Your task to perform on an android device: turn off location Image 0: 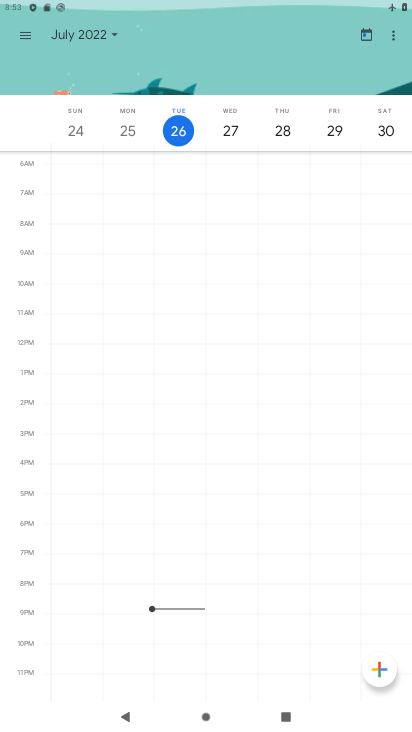
Step 0: press home button
Your task to perform on an android device: turn off location Image 1: 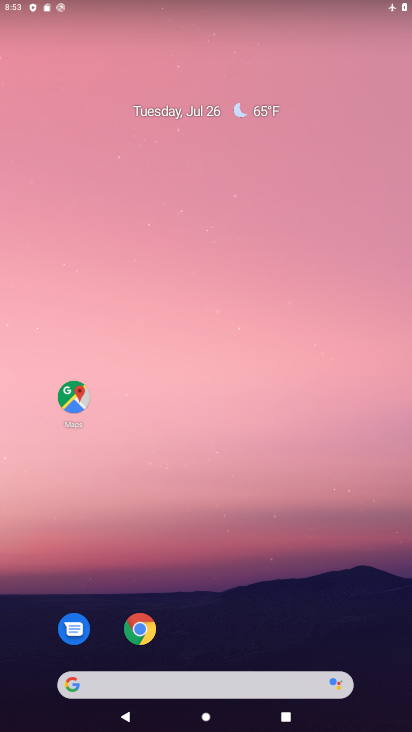
Step 1: drag from (322, 592) to (250, 28)
Your task to perform on an android device: turn off location Image 2: 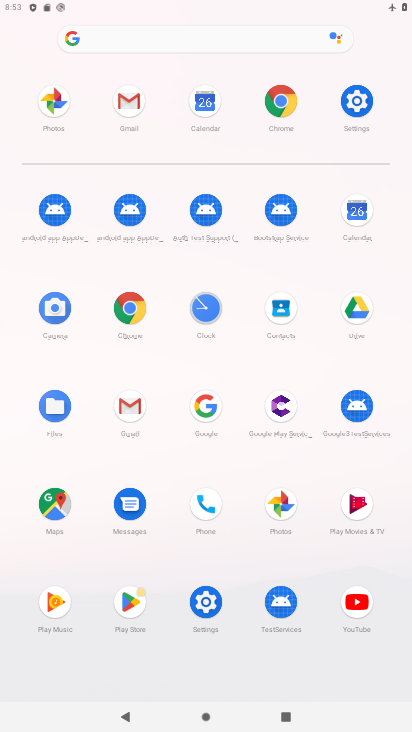
Step 2: click (365, 105)
Your task to perform on an android device: turn off location Image 3: 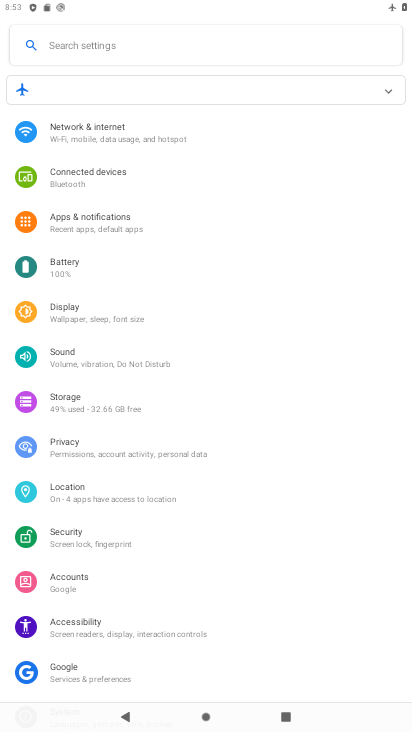
Step 3: click (85, 500)
Your task to perform on an android device: turn off location Image 4: 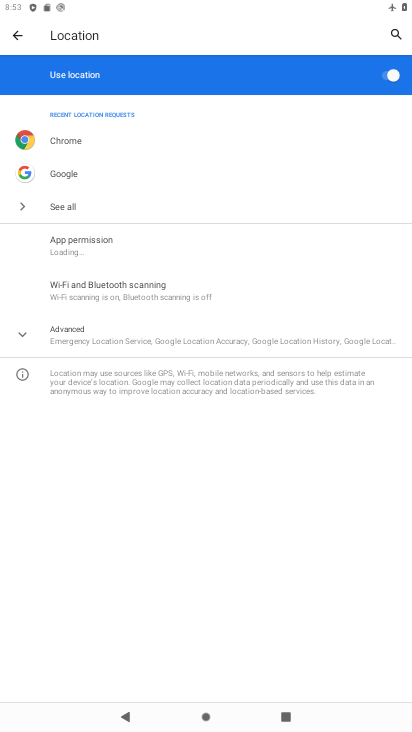
Step 4: click (377, 78)
Your task to perform on an android device: turn off location Image 5: 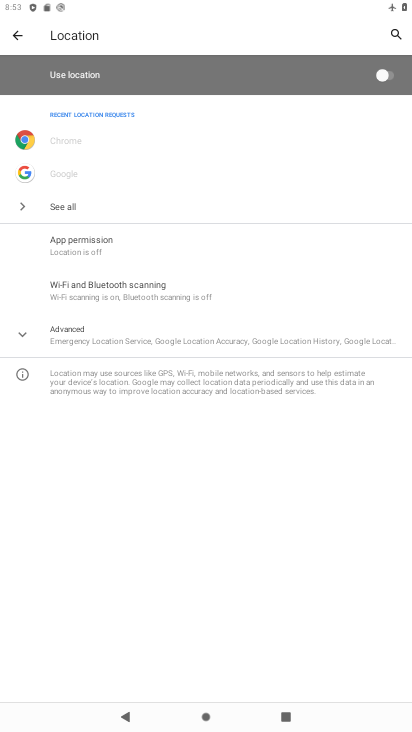
Step 5: task complete